Your task to perform on an android device: Open notification settings Image 0: 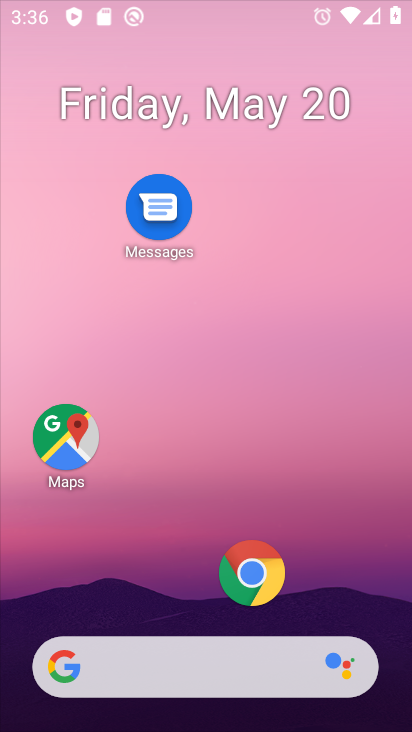
Step 0: click (66, 416)
Your task to perform on an android device: Open notification settings Image 1: 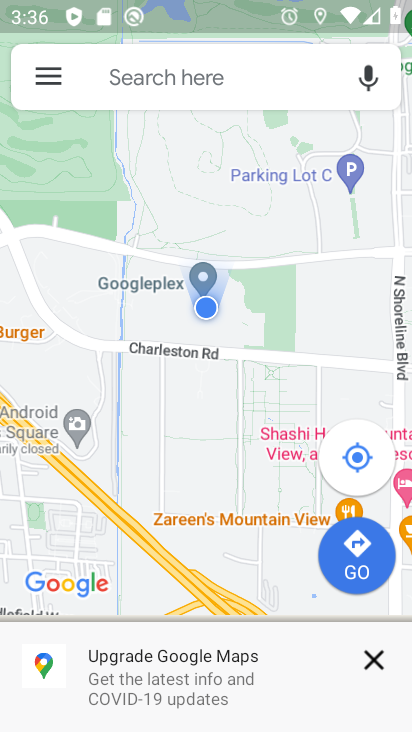
Step 1: press home button
Your task to perform on an android device: Open notification settings Image 2: 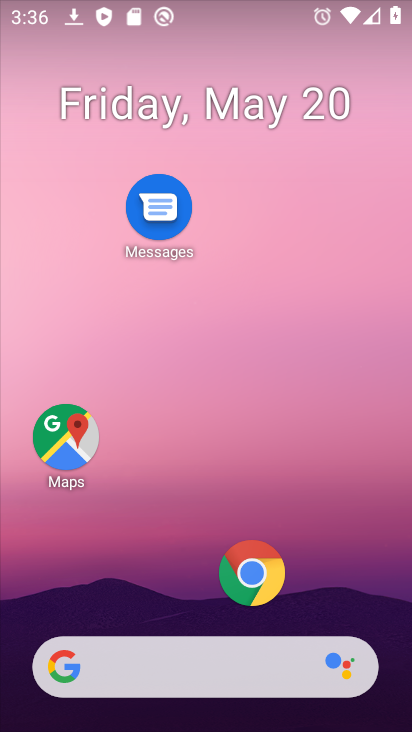
Step 2: drag from (178, 622) to (295, 90)
Your task to perform on an android device: Open notification settings Image 3: 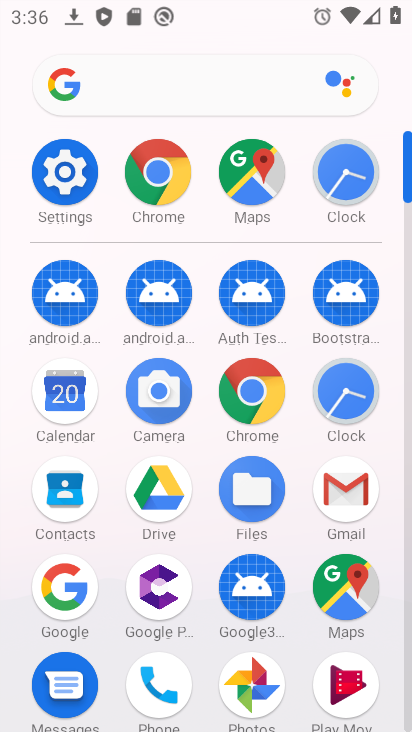
Step 3: click (65, 167)
Your task to perform on an android device: Open notification settings Image 4: 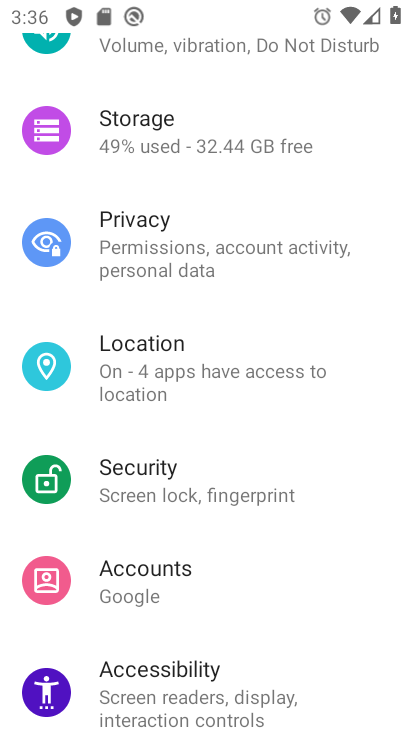
Step 4: drag from (194, 395) to (164, 548)
Your task to perform on an android device: Open notification settings Image 5: 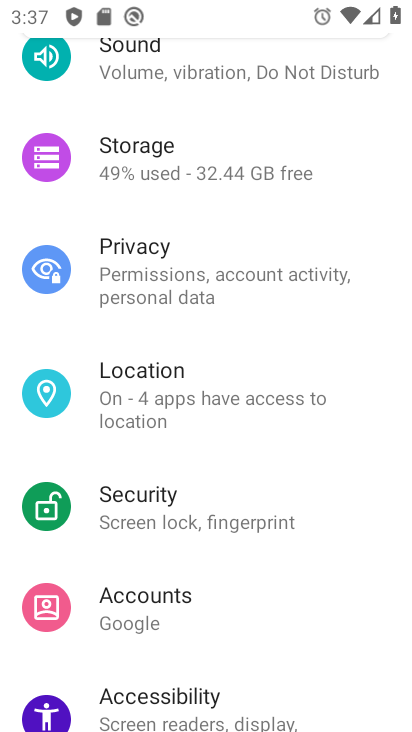
Step 5: drag from (166, 77) to (166, 628)
Your task to perform on an android device: Open notification settings Image 6: 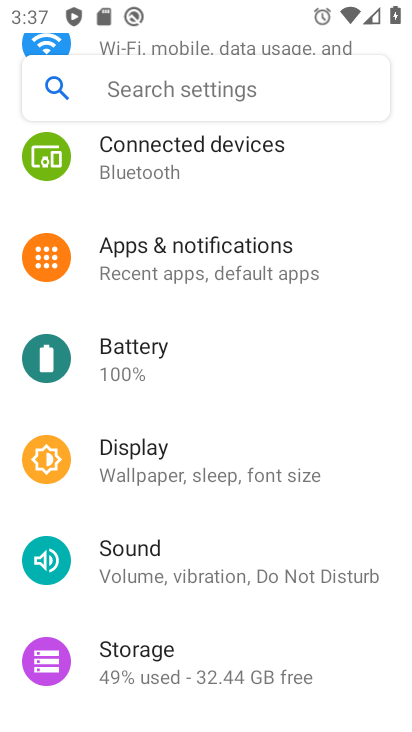
Step 6: click (152, 273)
Your task to perform on an android device: Open notification settings Image 7: 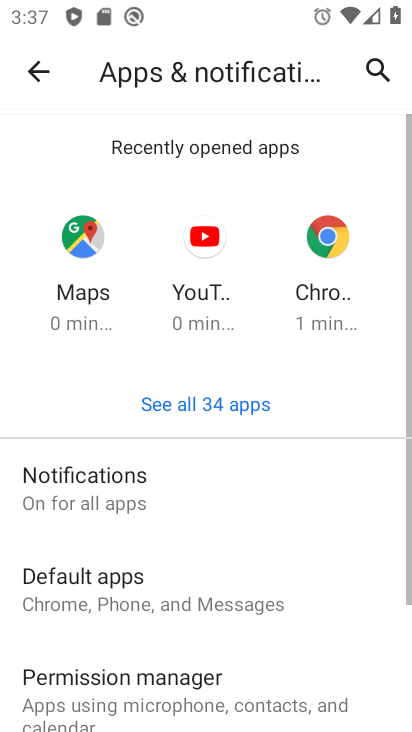
Step 7: task complete